Your task to perform on an android device: toggle airplane mode Image 0: 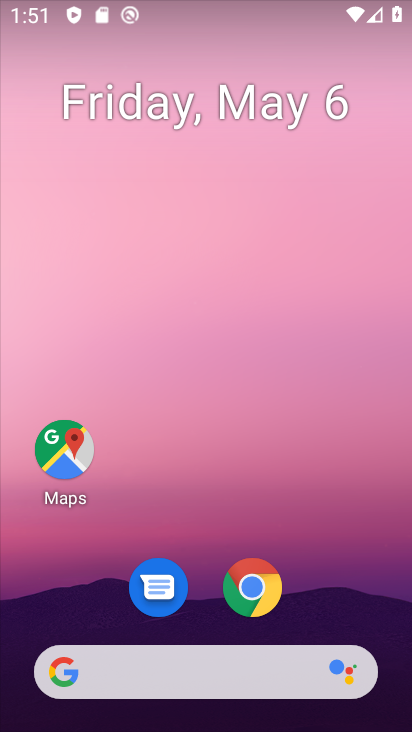
Step 0: drag from (314, 629) to (387, 41)
Your task to perform on an android device: toggle airplane mode Image 1: 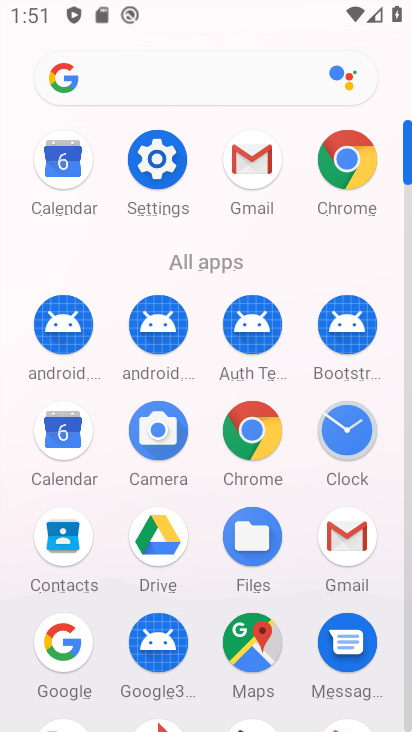
Step 1: click (150, 187)
Your task to perform on an android device: toggle airplane mode Image 2: 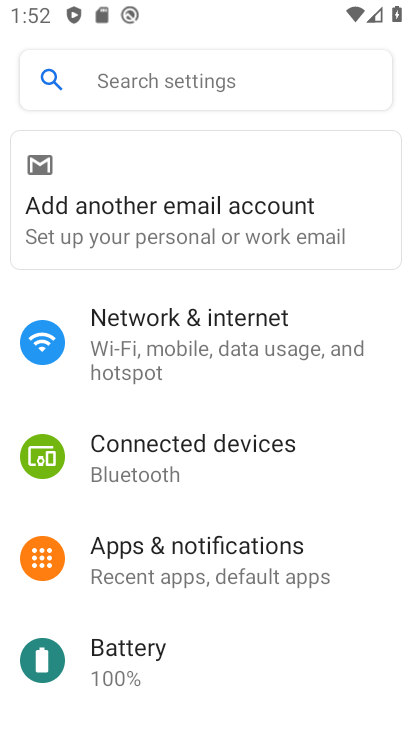
Step 2: click (157, 308)
Your task to perform on an android device: toggle airplane mode Image 3: 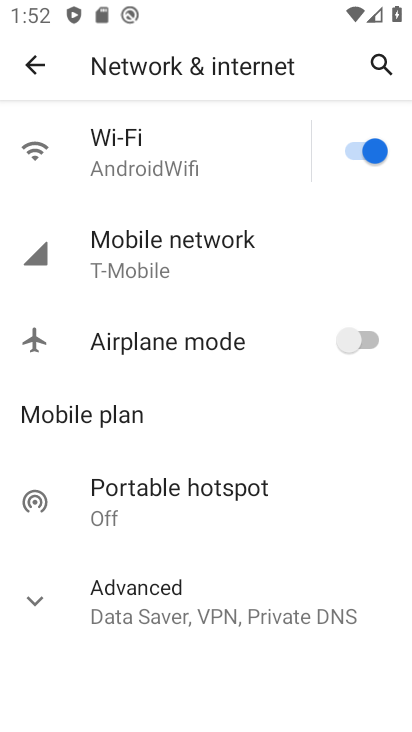
Step 3: click (365, 329)
Your task to perform on an android device: toggle airplane mode Image 4: 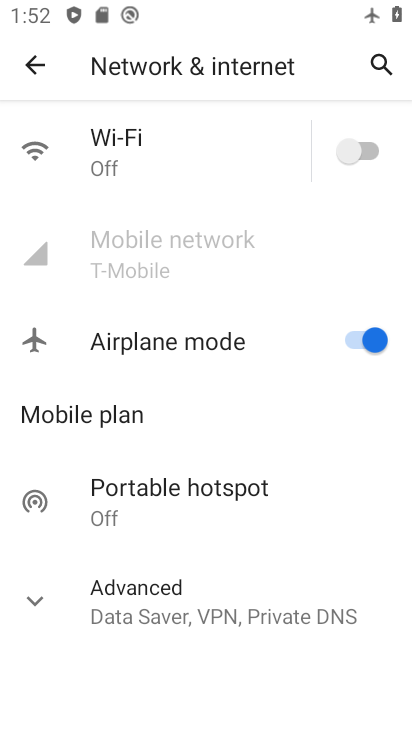
Step 4: task complete